Your task to perform on an android device: Open maps Image 0: 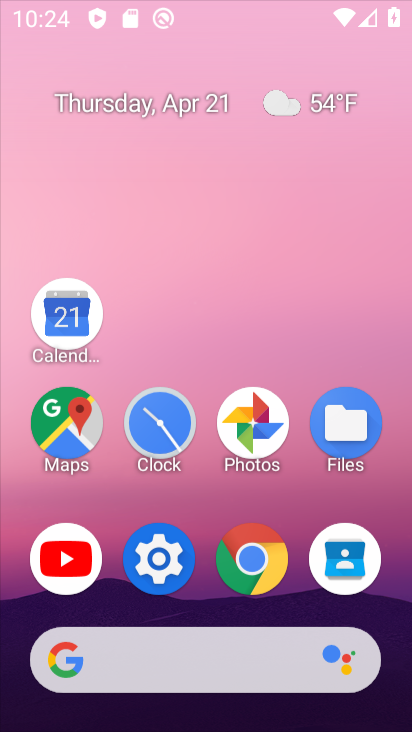
Step 0: press home button
Your task to perform on an android device: Open maps Image 1: 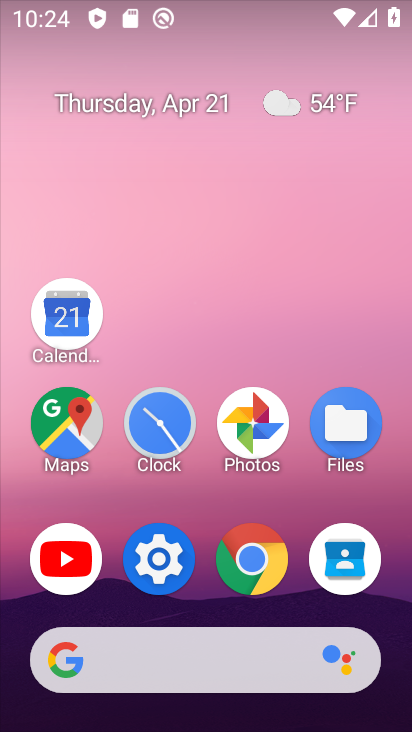
Step 1: click (63, 432)
Your task to perform on an android device: Open maps Image 2: 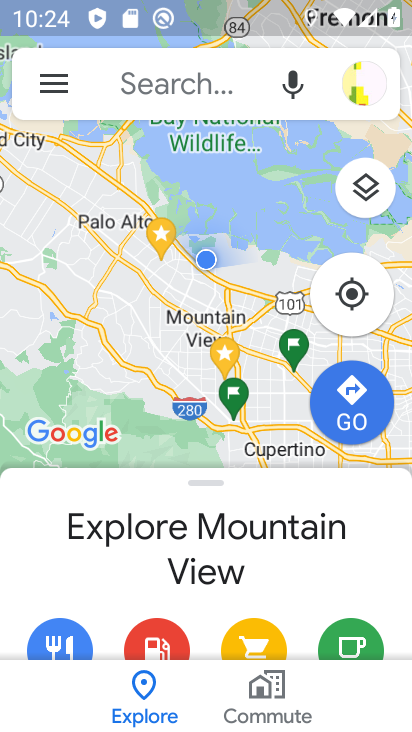
Step 2: task complete